Your task to perform on an android device: Do I have any events today? Image 0: 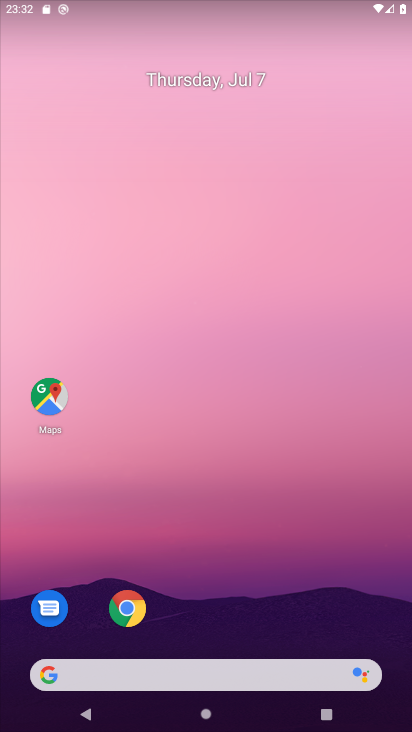
Step 0: drag from (304, 477) to (277, 221)
Your task to perform on an android device: Do I have any events today? Image 1: 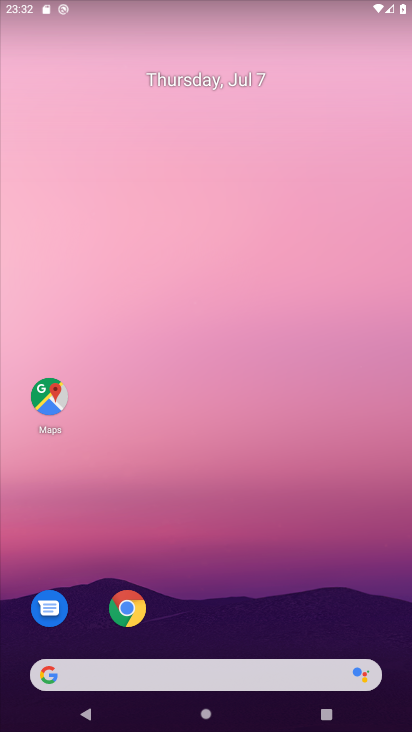
Step 1: drag from (225, 641) to (181, 74)
Your task to perform on an android device: Do I have any events today? Image 2: 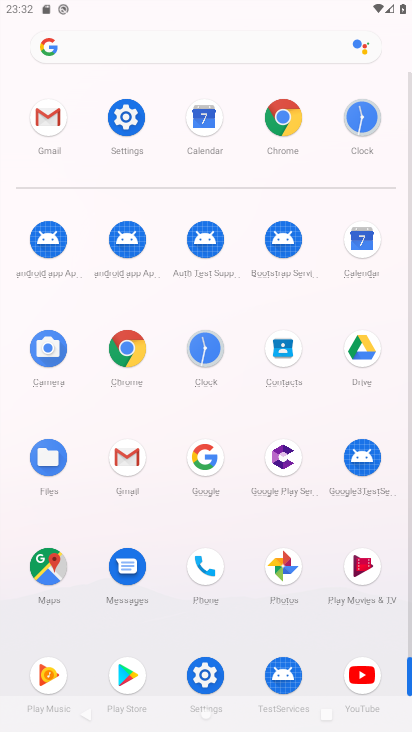
Step 2: drag from (204, 586) to (208, 359)
Your task to perform on an android device: Do I have any events today? Image 3: 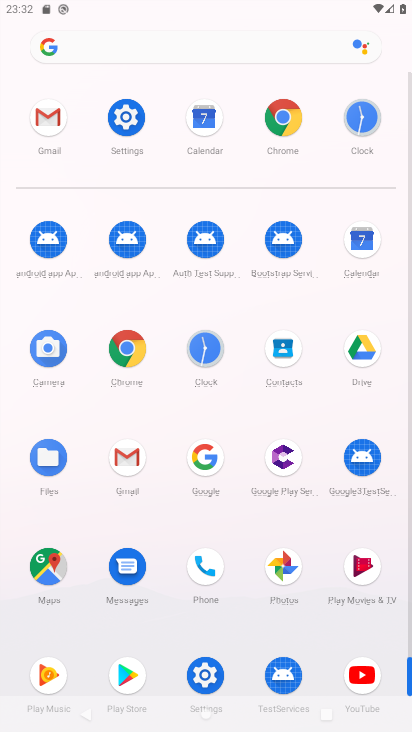
Step 3: click (227, 465)
Your task to perform on an android device: Do I have any events today? Image 4: 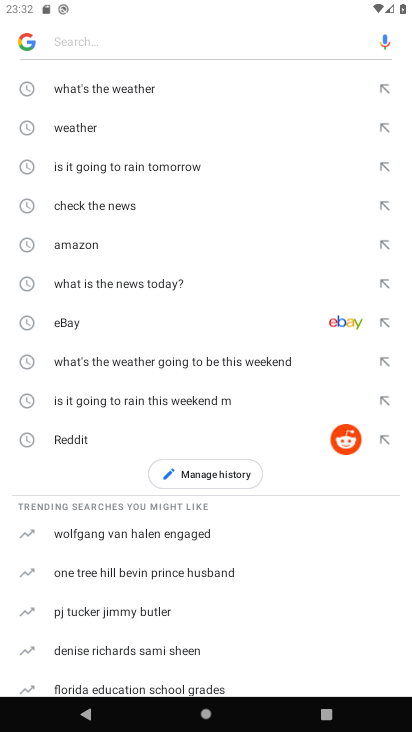
Step 4: drag from (211, 410) to (194, 87)
Your task to perform on an android device: Do I have any events today? Image 5: 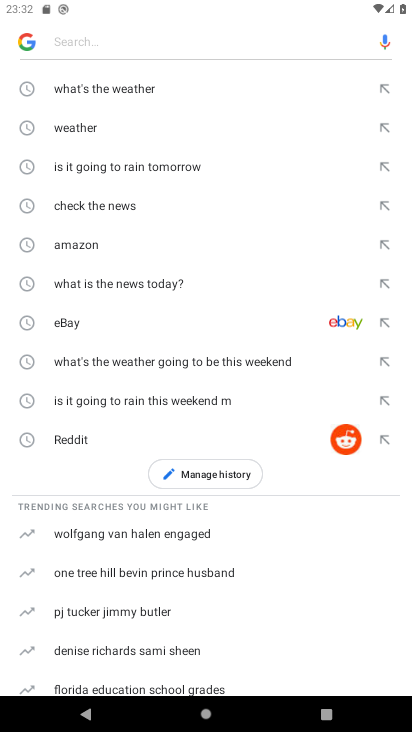
Step 5: click (351, 235)
Your task to perform on an android device: Do I have any events today? Image 6: 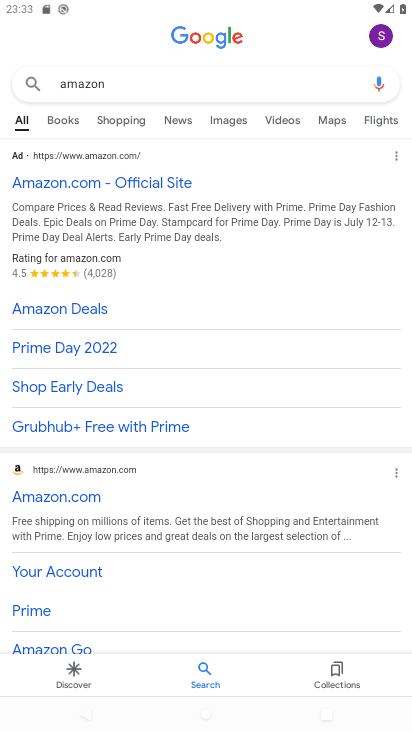
Step 6: press home button
Your task to perform on an android device: Do I have any events today? Image 7: 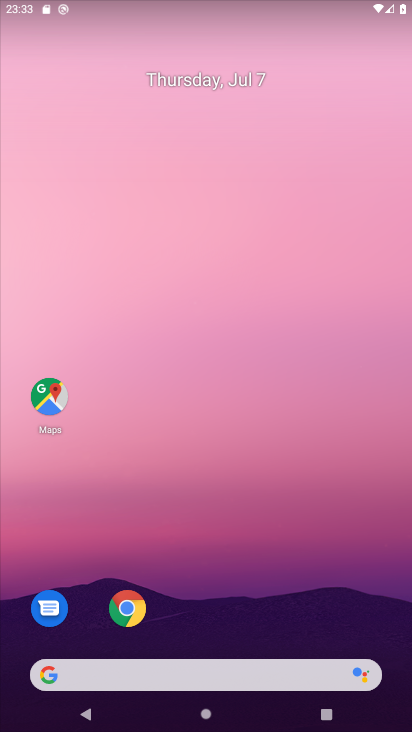
Step 7: drag from (303, 652) to (289, 10)
Your task to perform on an android device: Do I have any events today? Image 8: 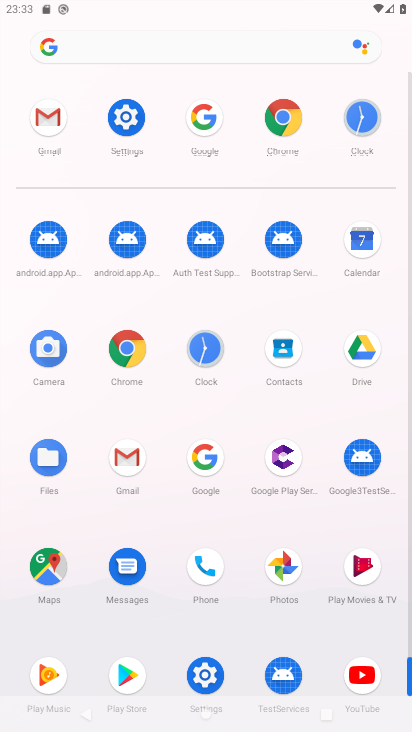
Step 8: click (356, 235)
Your task to perform on an android device: Do I have any events today? Image 9: 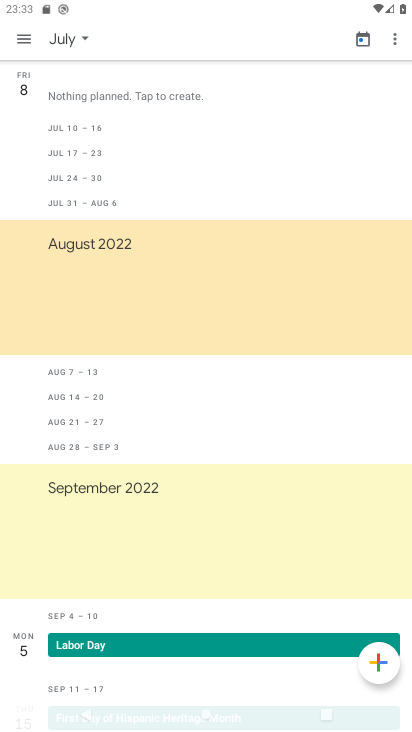
Step 9: task complete